Your task to perform on an android device: turn off data saver in the chrome app Image 0: 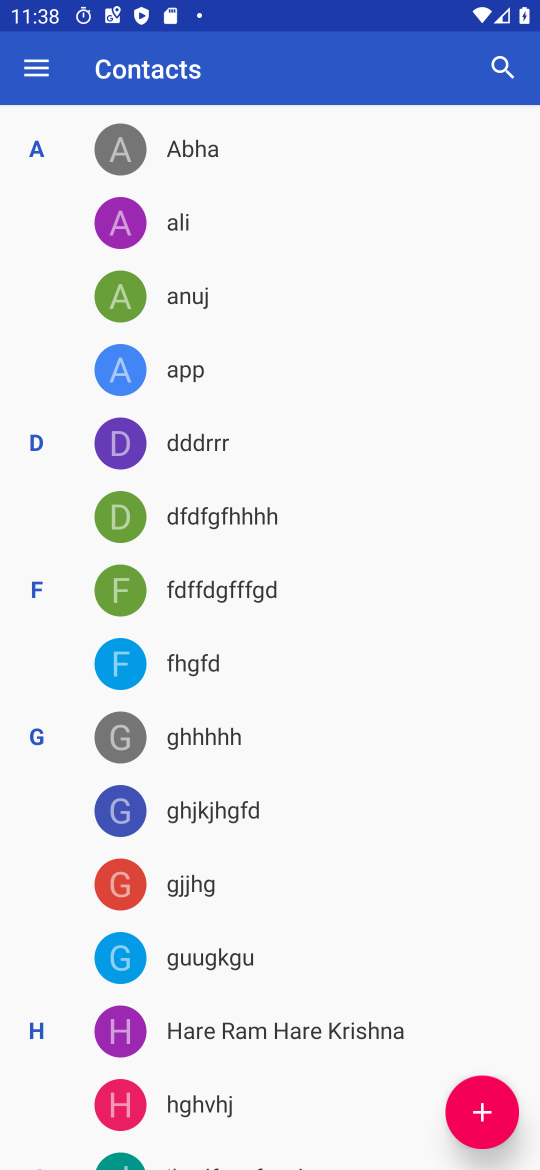
Step 0: press back button
Your task to perform on an android device: turn off data saver in the chrome app Image 1: 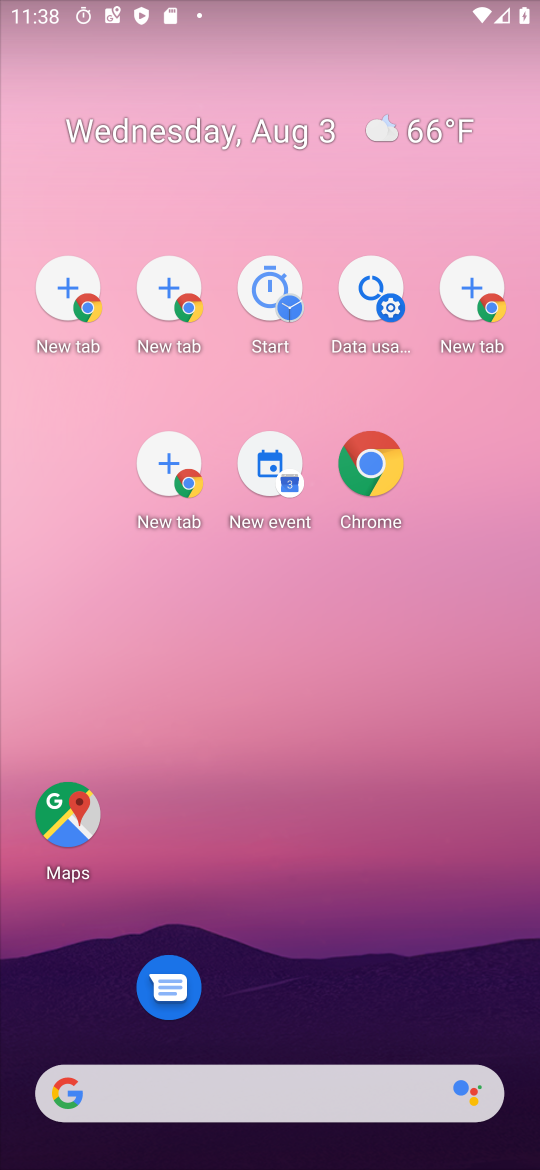
Step 1: drag from (366, 804) to (305, 303)
Your task to perform on an android device: turn off data saver in the chrome app Image 2: 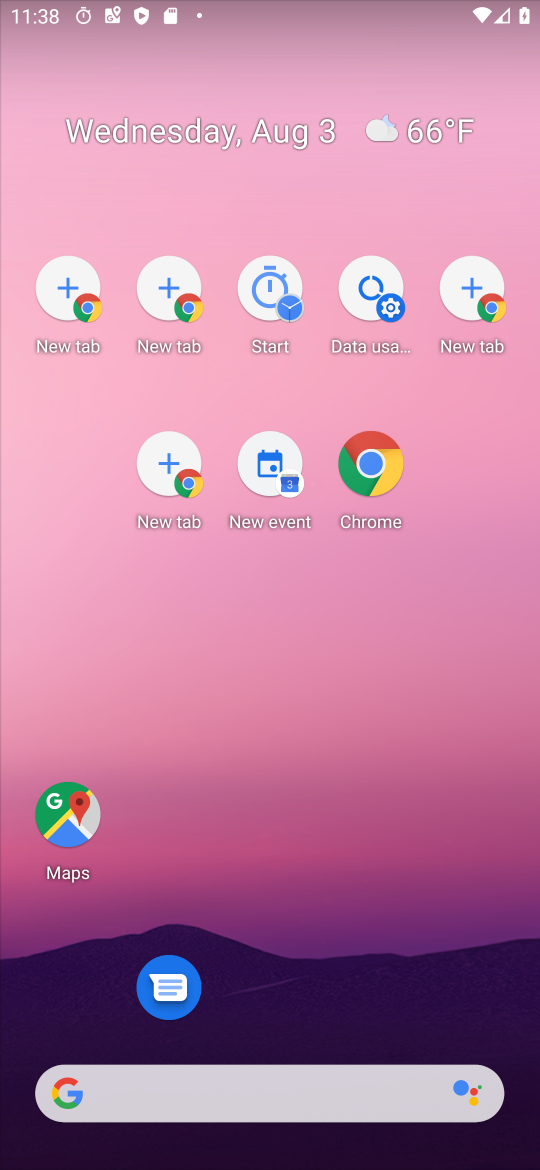
Step 2: click (373, 447)
Your task to perform on an android device: turn off data saver in the chrome app Image 3: 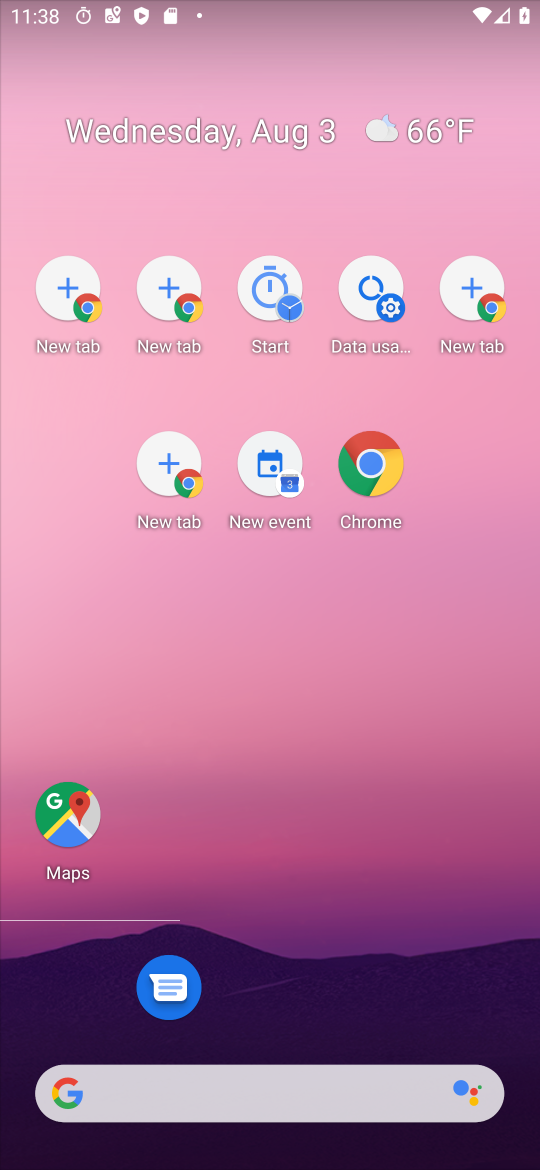
Step 3: click (268, 396)
Your task to perform on an android device: turn off data saver in the chrome app Image 4: 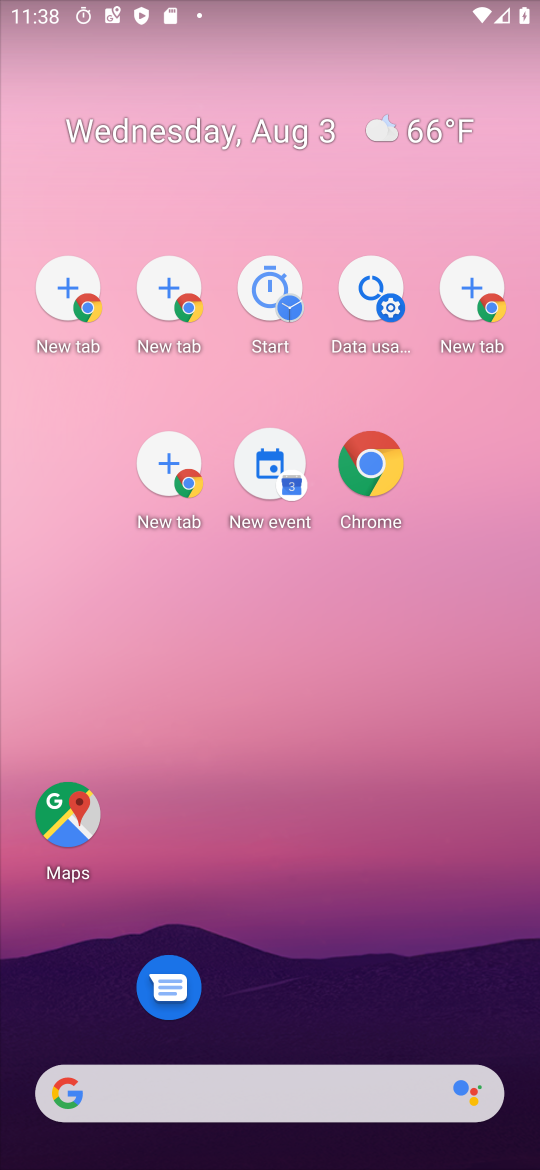
Step 4: drag from (372, 248) to (352, 132)
Your task to perform on an android device: turn off data saver in the chrome app Image 5: 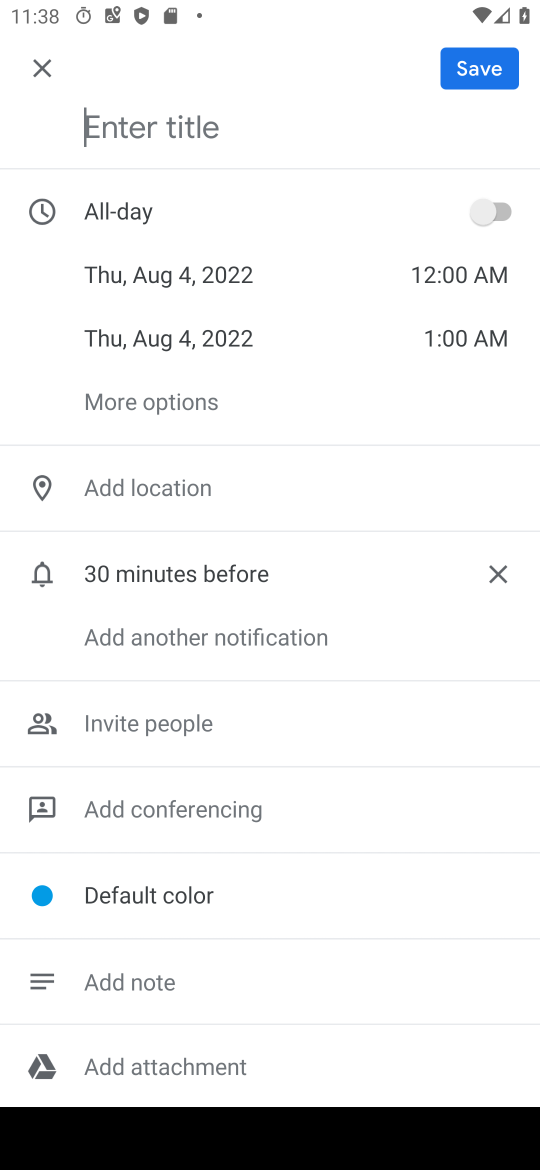
Step 5: click (30, 29)
Your task to perform on an android device: turn off data saver in the chrome app Image 6: 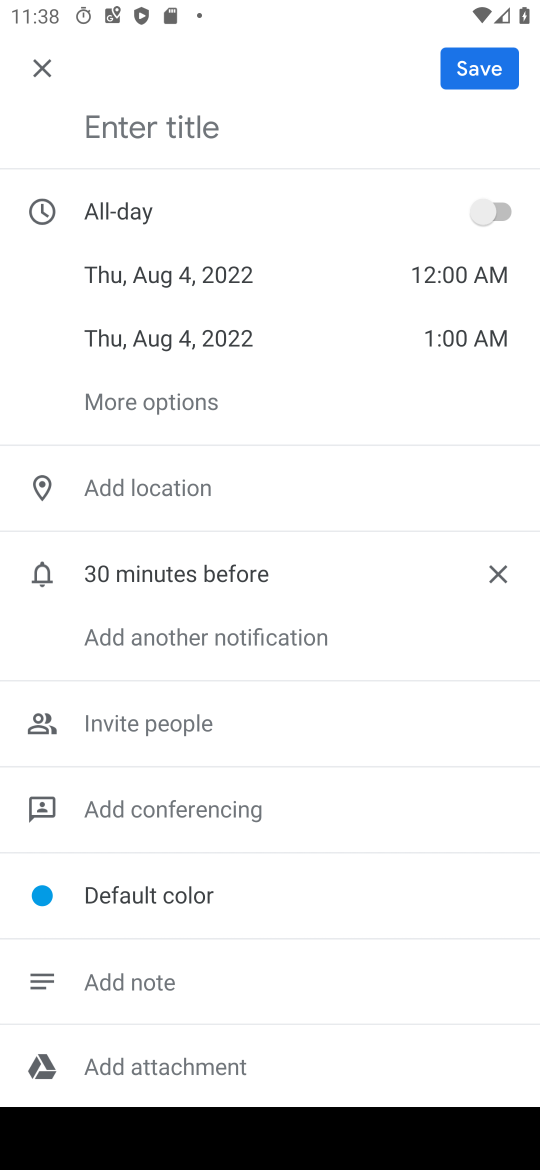
Step 6: drag from (217, 746) to (225, 394)
Your task to perform on an android device: turn off data saver in the chrome app Image 7: 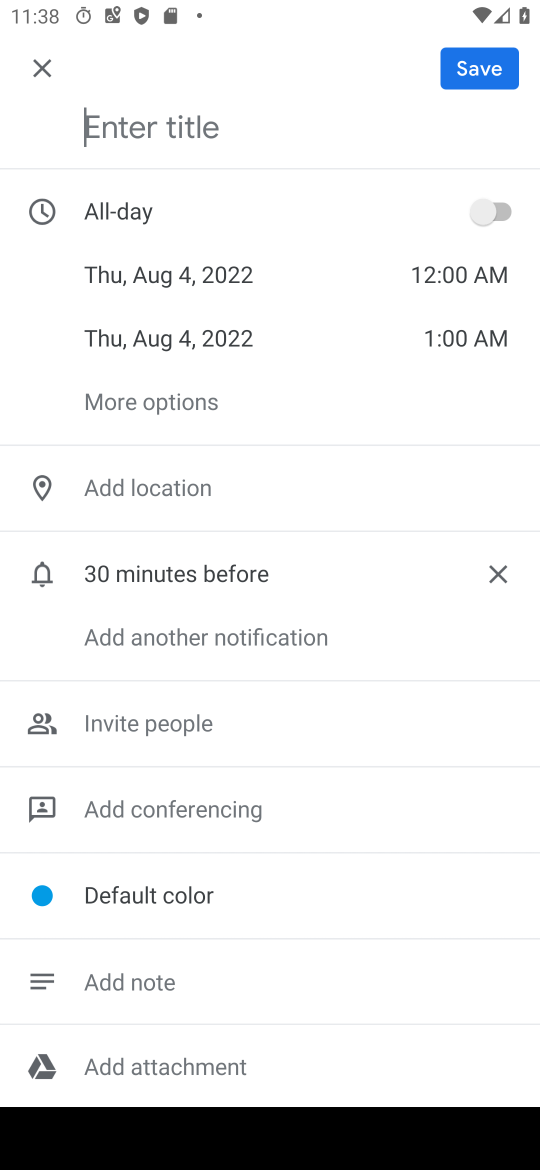
Step 7: click (42, 43)
Your task to perform on an android device: turn off data saver in the chrome app Image 8: 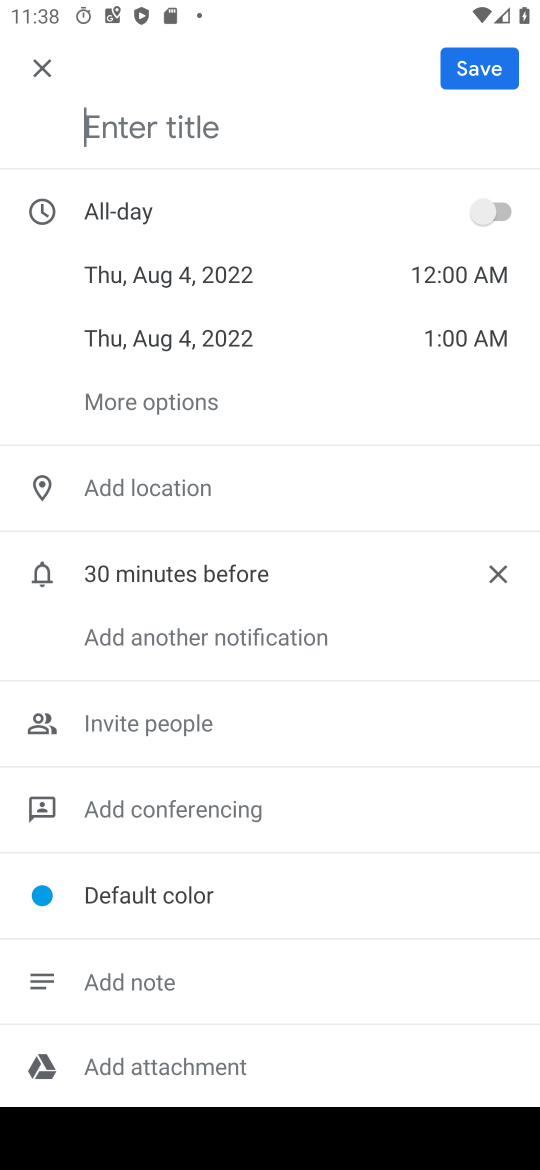
Step 8: click (42, 55)
Your task to perform on an android device: turn off data saver in the chrome app Image 9: 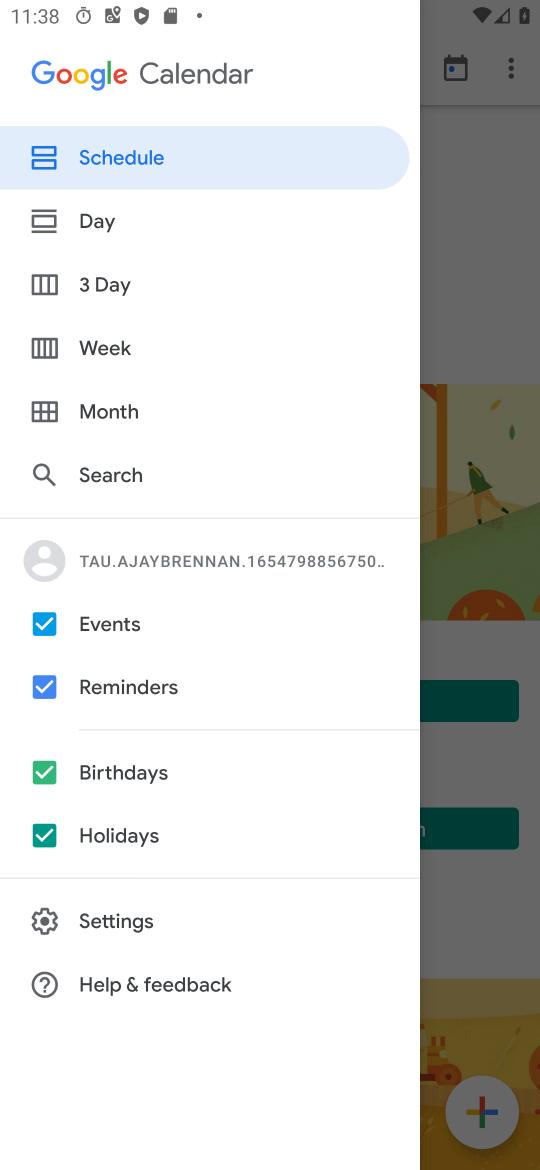
Step 9: click (453, 462)
Your task to perform on an android device: turn off data saver in the chrome app Image 10: 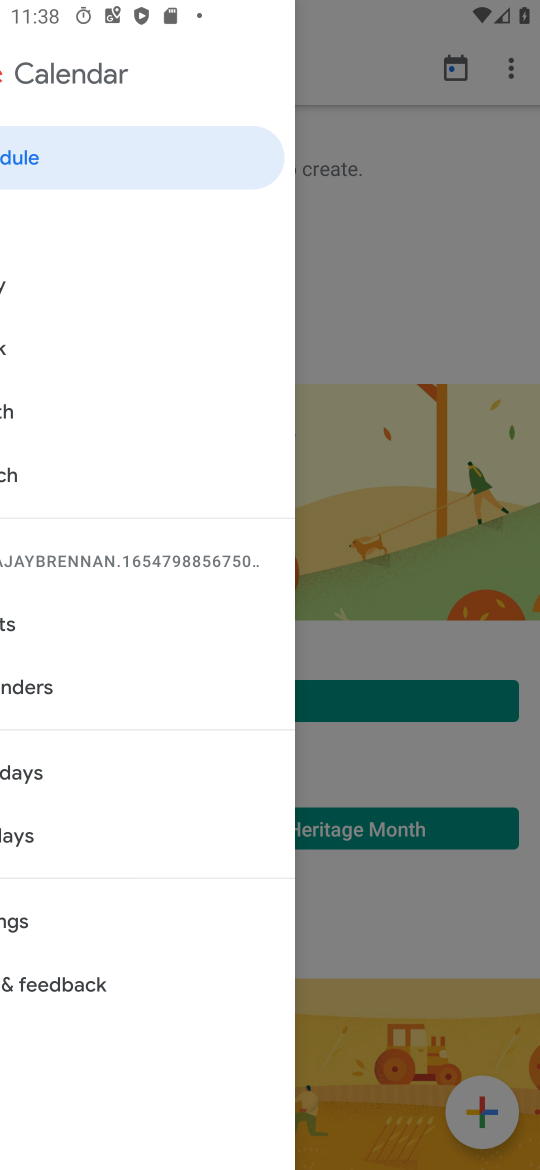
Step 10: click (453, 462)
Your task to perform on an android device: turn off data saver in the chrome app Image 11: 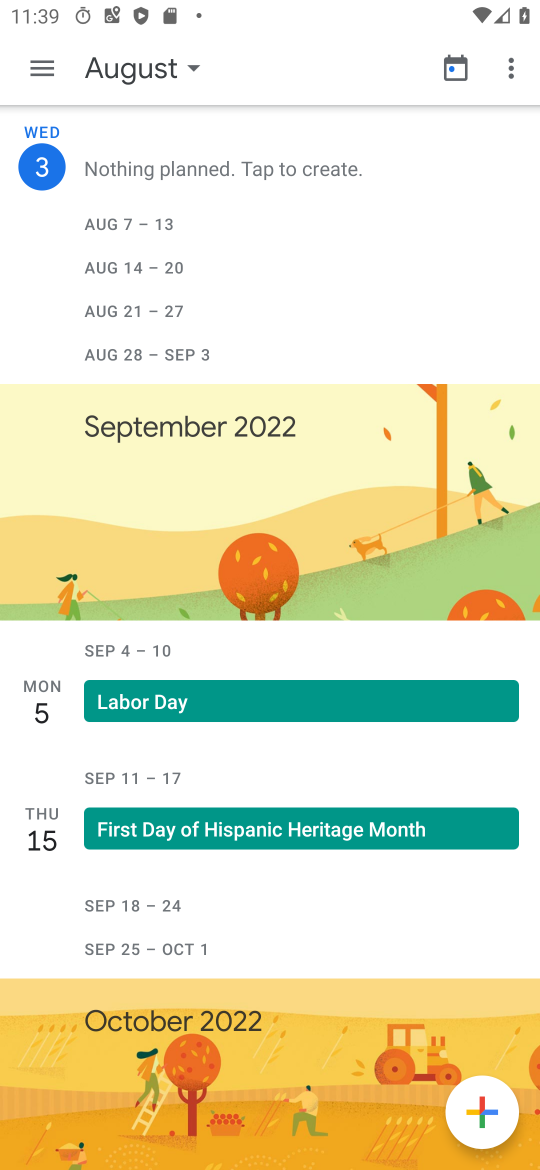
Step 11: press back button
Your task to perform on an android device: turn off data saver in the chrome app Image 12: 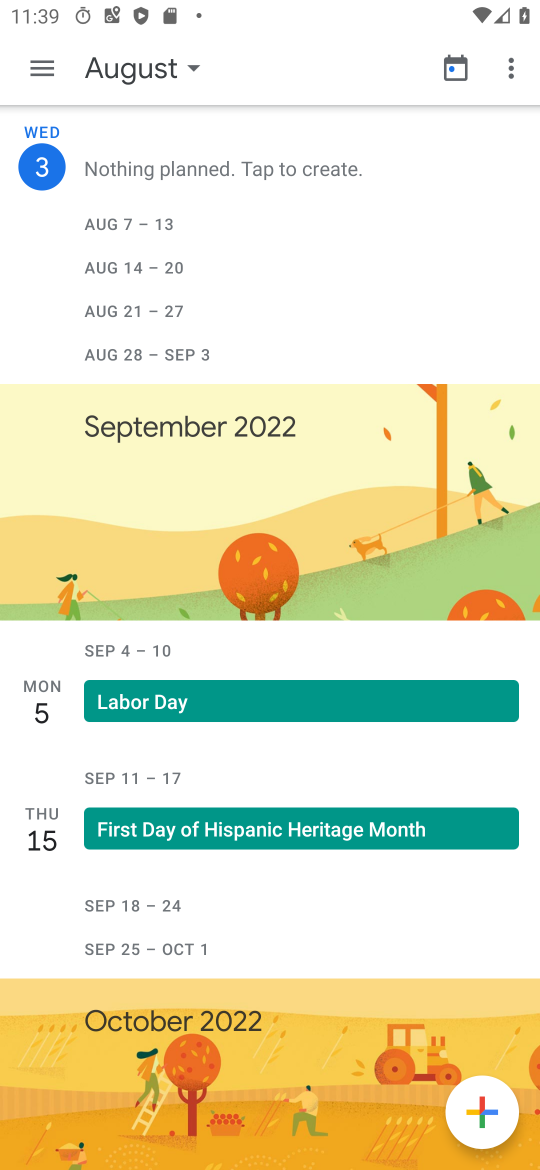
Step 12: press back button
Your task to perform on an android device: turn off data saver in the chrome app Image 13: 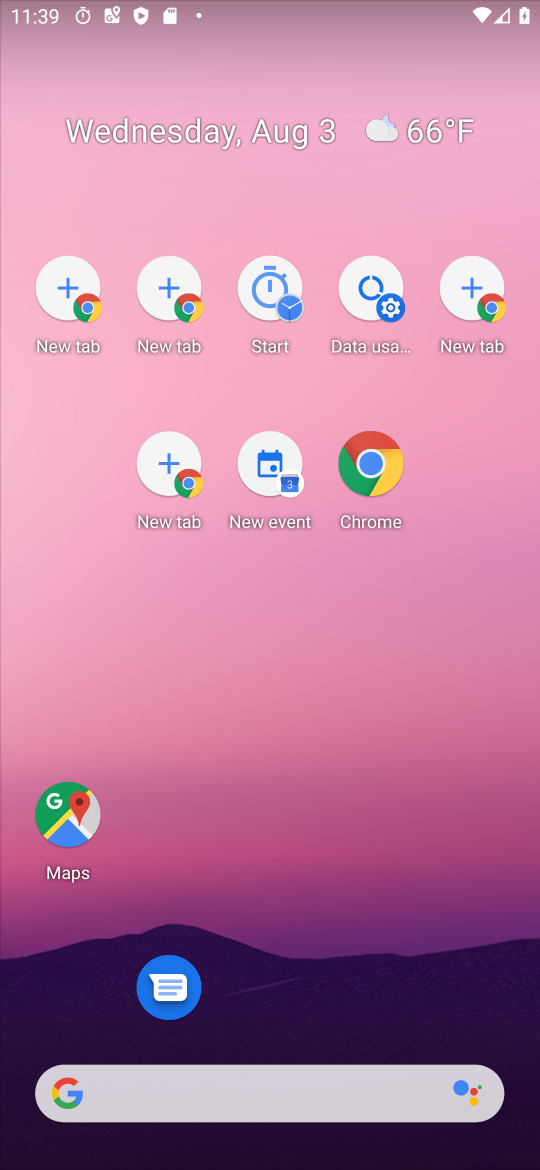
Step 13: press back button
Your task to perform on an android device: turn off data saver in the chrome app Image 14: 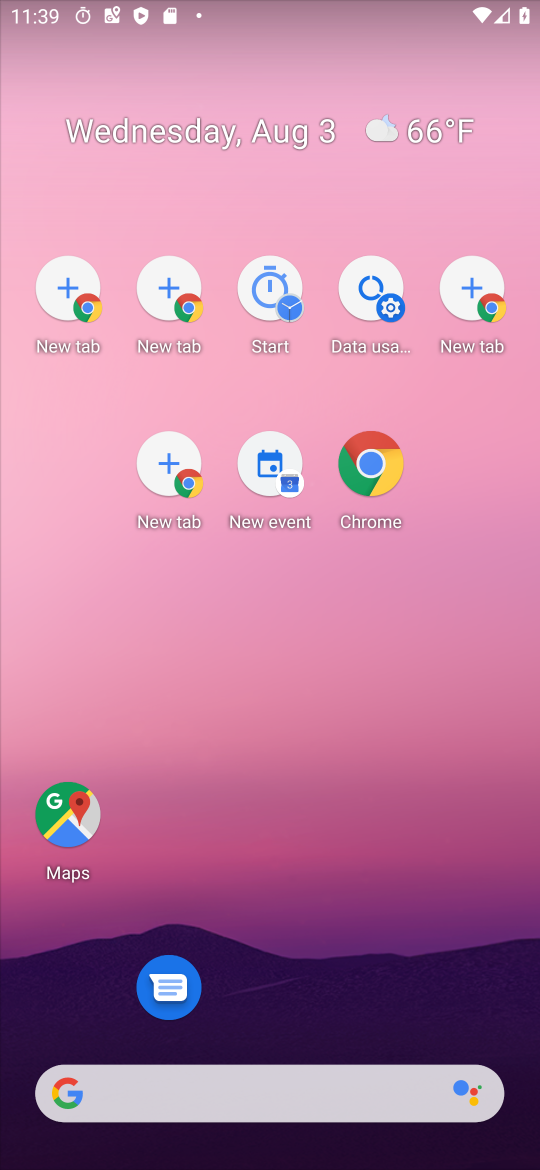
Step 14: drag from (390, 994) to (230, 199)
Your task to perform on an android device: turn off data saver in the chrome app Image 15: 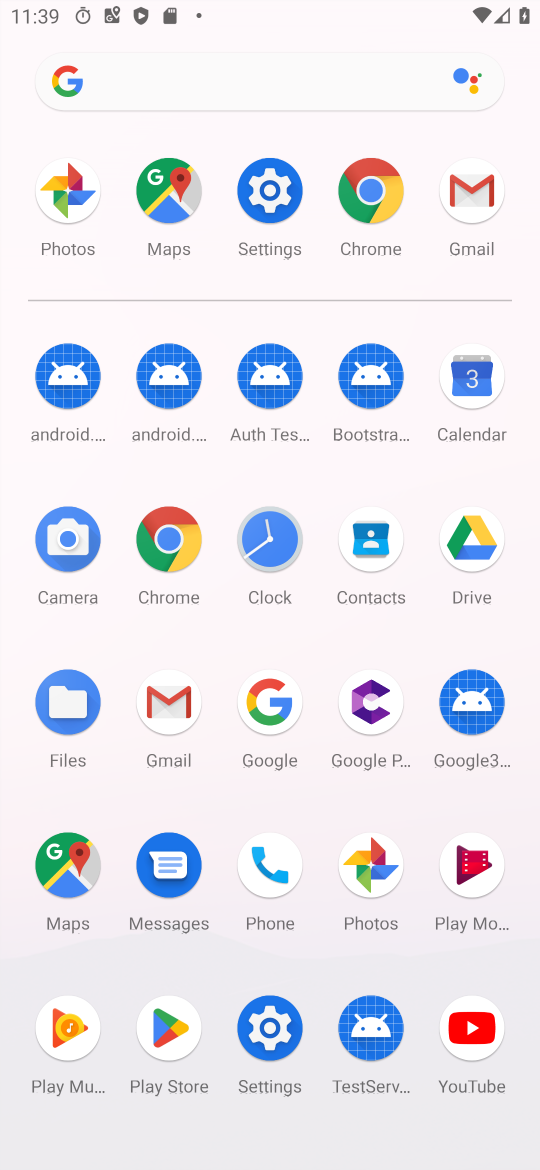
Step 15: click (367, 200)
Your task to perform on an android device: turn off data saver in the chrome app Image 16: 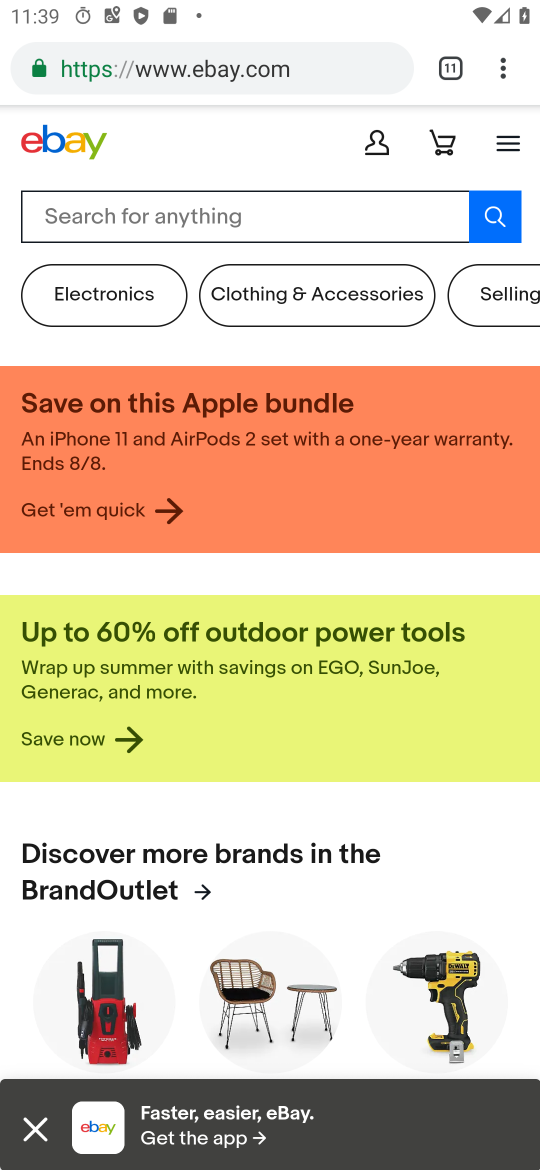
Step 16: drag from (507, 63) to (243, 812)
Your task to perform on an android device: turn off data saver in the chrome app Image 17: 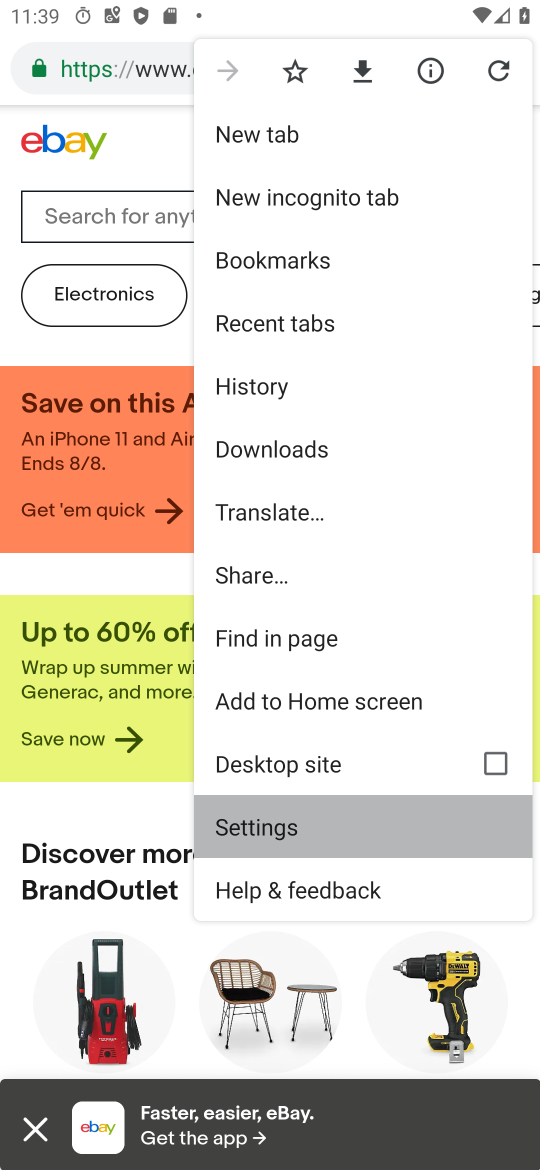
Step 17: click (241, 817)
Your task to perform on an android device: turn off data saver in the chrome app Image 18: 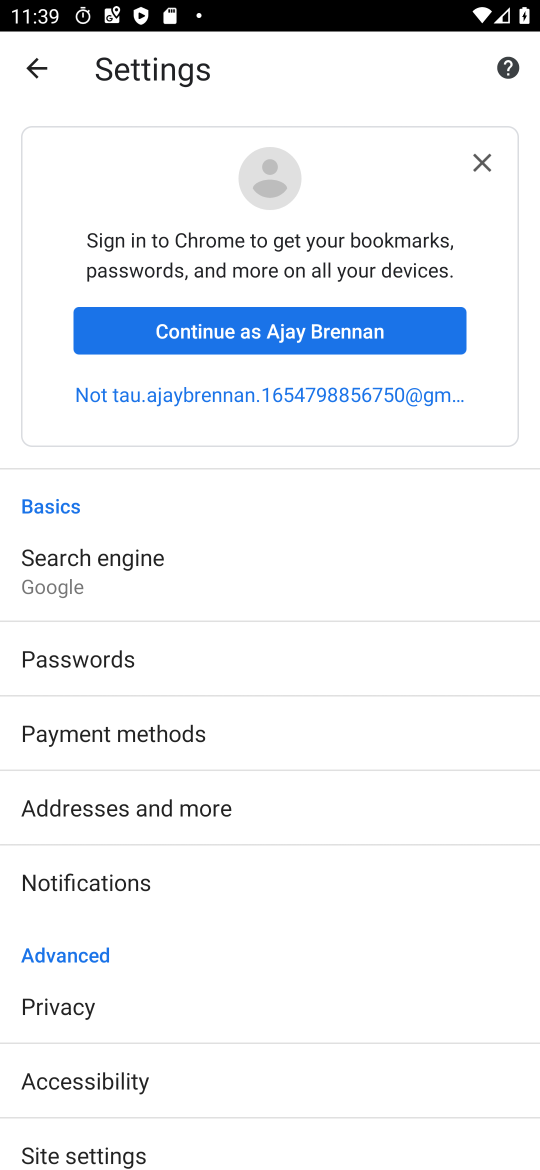
Step 18: drag from (203, 998) to (222, 218)
Your task to perform on an android device: turn off data saver in the chrome app Image 19: 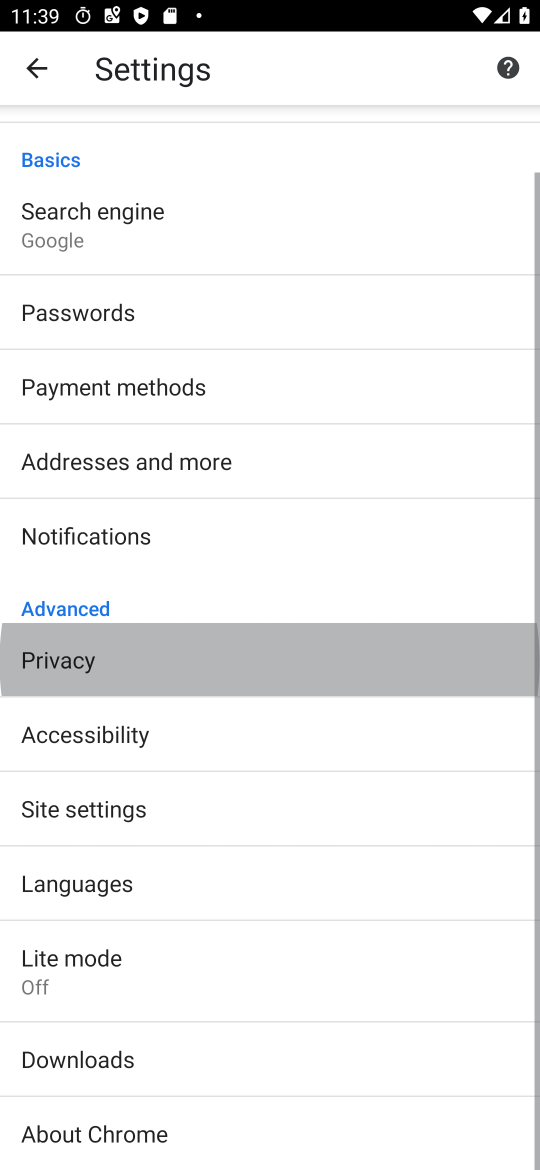
Step 19: drag from (249, 809) to (218, 528)
Your task to perform on an android device: turn off data saver in the chrome app Image 20: 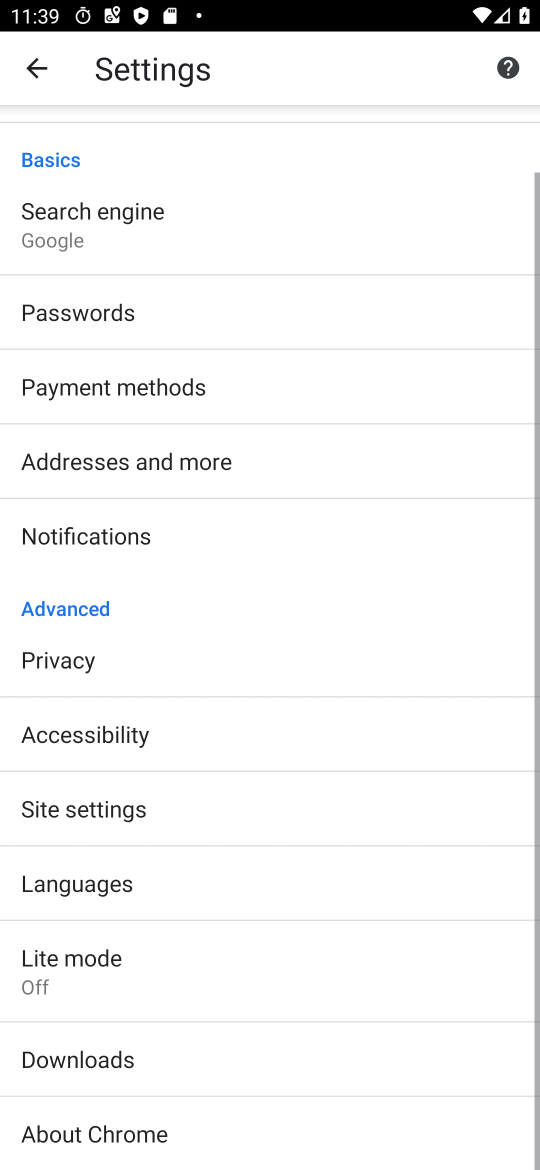
Step 20: click (53, 952)
Your task to perform on an android device: turn off data saver in the chrome app Image 21: 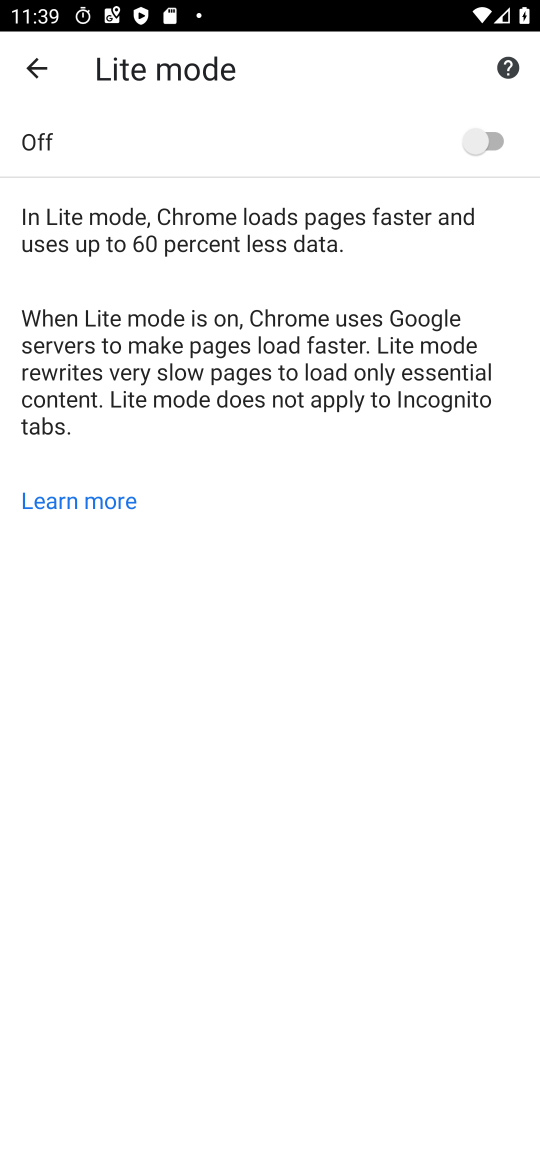
Step 21: task complete